Your task to perform on an android device: set the stopwatch Image 0: 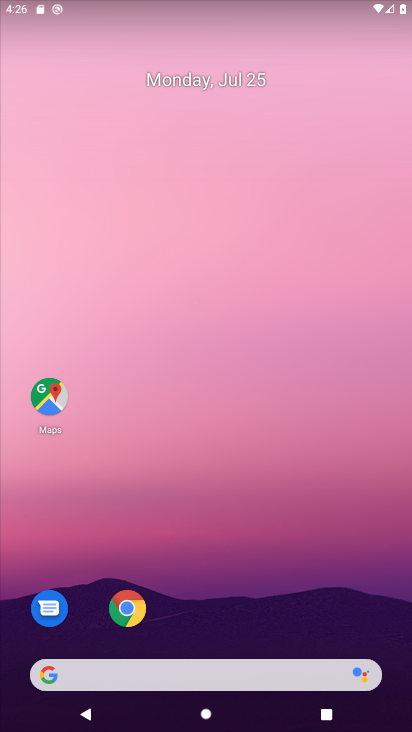
Step 0: click (236, 4)
Your task to perform on an android device: set the stopwatch Image 1: 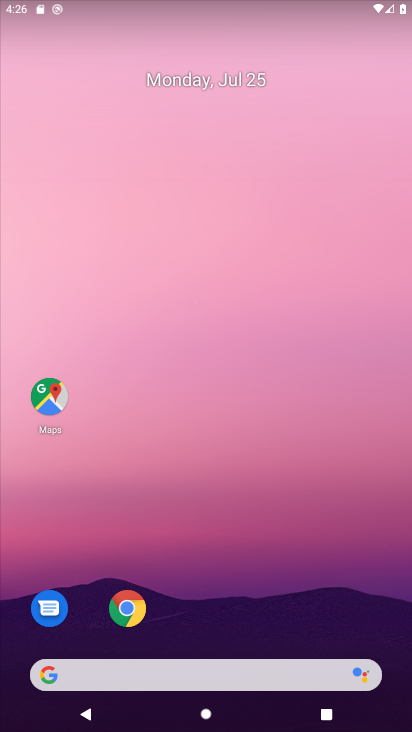
Step 1: drag from (220, 629) to (191, 7)
Your task to perform on an android device: set the stopwatch Image 2: 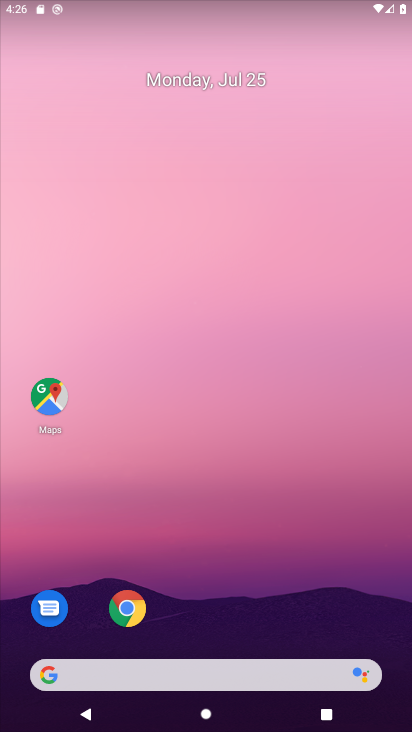
Step 2: drag from (177, 637) to (277, 2)
Your task to perform on an android device: set the stopwatch Image 3: 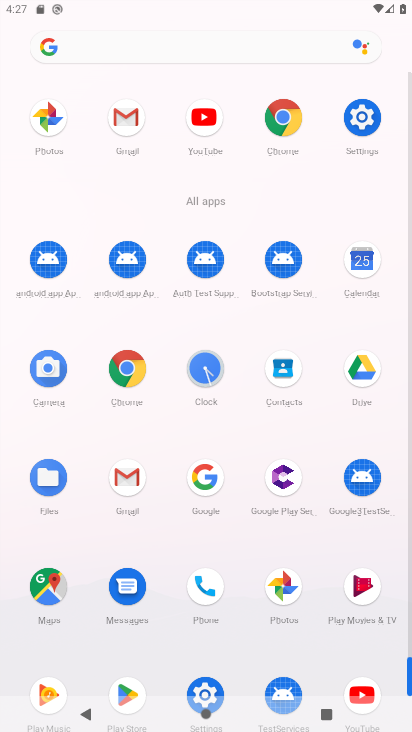
Step 3: click (208, 387)
Your task to perform on an android device: set the stopwatch Image 4: 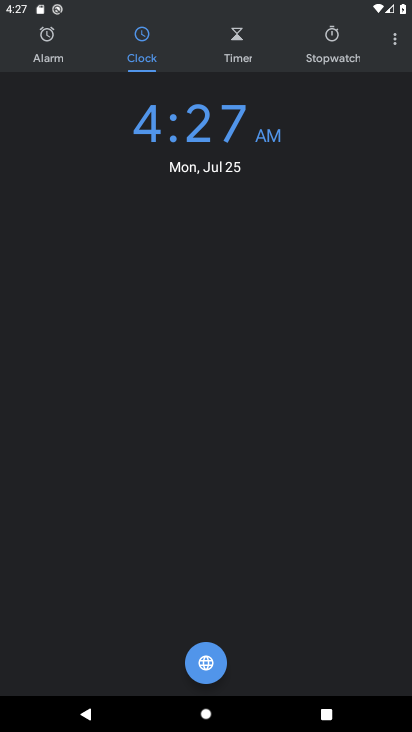
Step 4: click (327, 57)
Your task to perform on an android device: set the stopwatch Image 5: 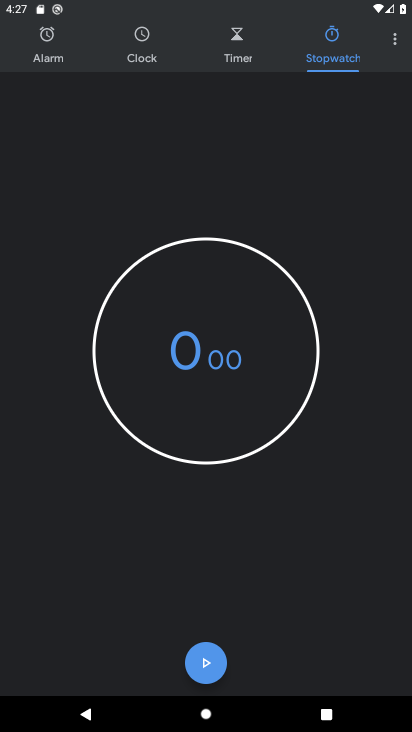
Step 5: click (210, 672)
Your task to perform on an android device: set the stopwatch Image 6: 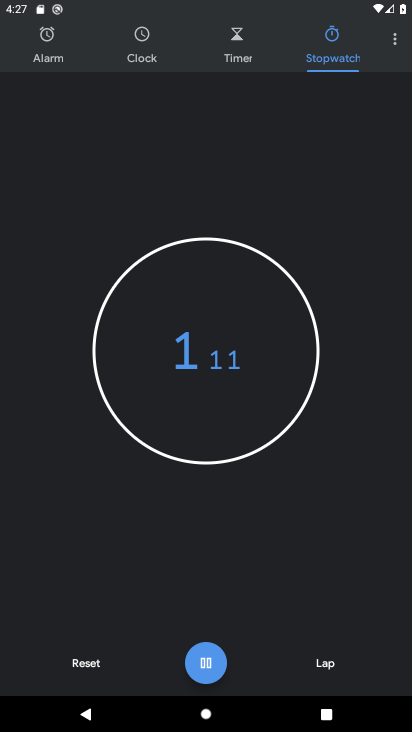
Step 6: task complete